Your task to perform on an android device: turn on airplane mode Image 0: 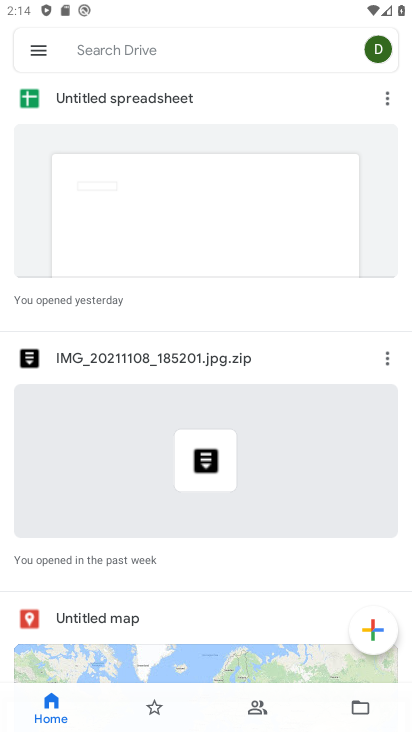
Step 0: press home button
Your task to perform on an android device: turn on airplane mode Image 1: 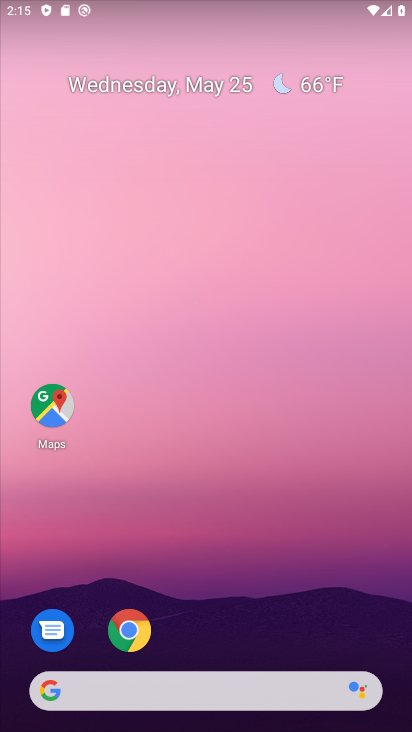
Step 1: drag from (284, 7) to (312, 458)
Your task to perform on an android device: turn on airplane mode Image 2: 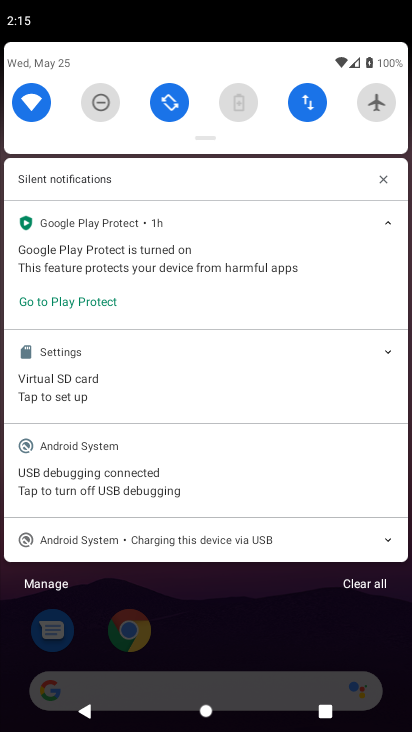
Step 2: click (376, 99)
Your task to perform on an android device: turn on airplane mode Image 3: 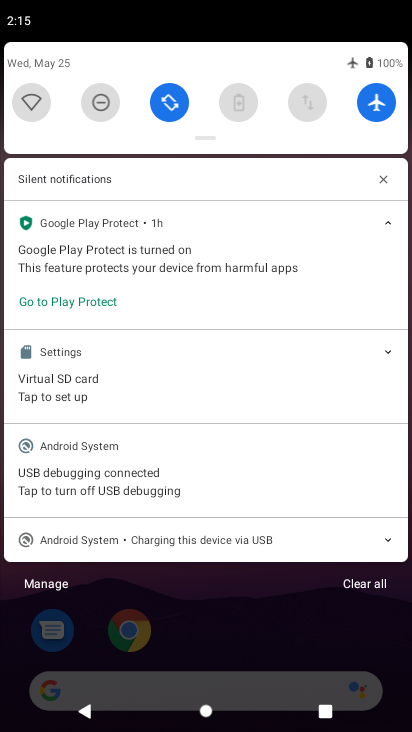
Step 3: task complete